Your task to perform on an android device: Open notification settings Image 0: 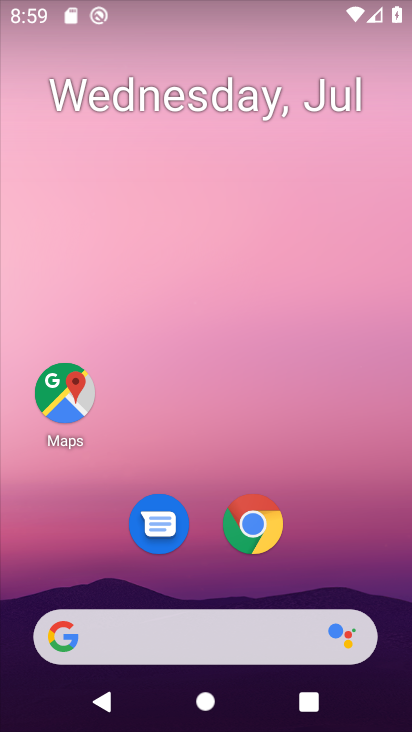
Step 0: drag from (314, 567) to (251, 85)
Your task to perform on an android device: Open notification settings Image 1: 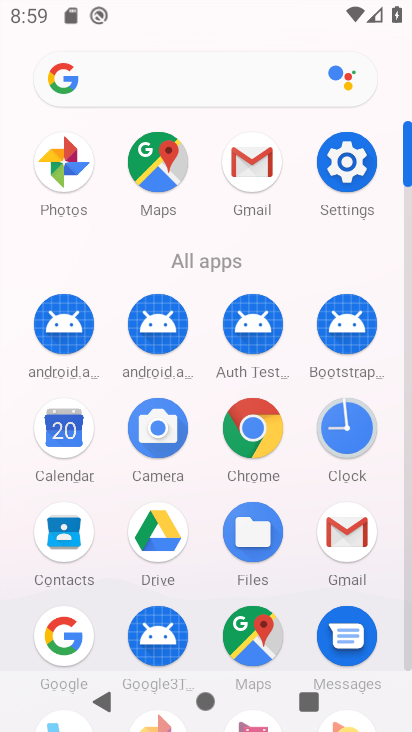
Step 1: click (344, 161)
Your task to perform on an android device: Open notification settings Image 2: 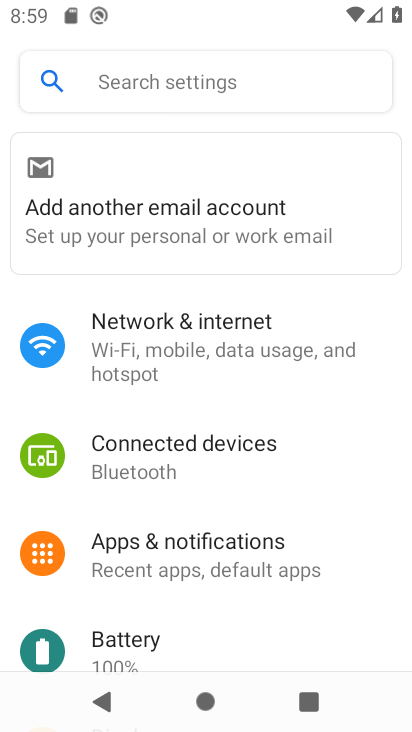
Step 2: click (193, 551)
Your task to perform on an android device: Open notification settings Image 3: 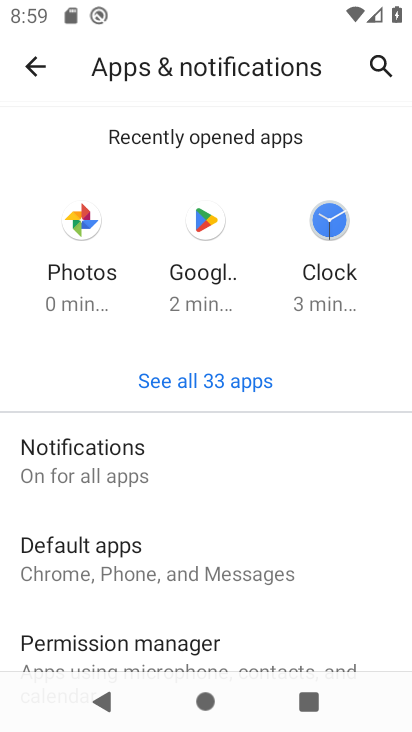
Step 3: task complete